Your task to perform on an android device: check the backup settings in the google photos Image 0: 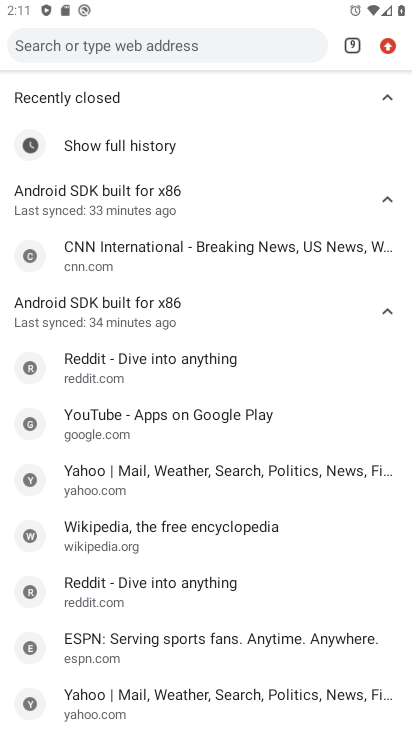
Step 0: press home button
Your task to perform on an android device: check the backup settings in the google photos Image 1: 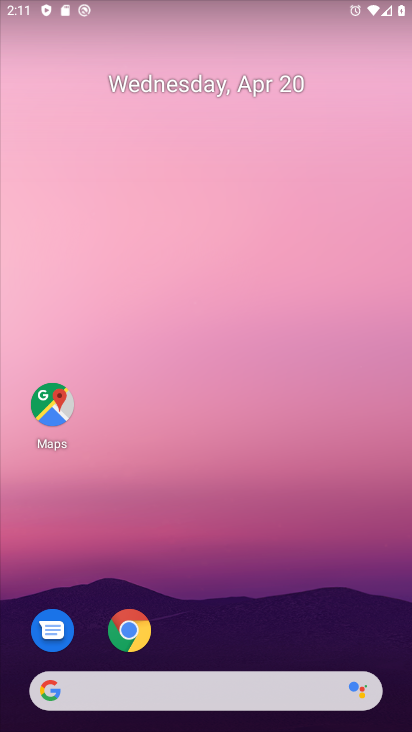
Step 1: drag from (273, 630) to (223, 98)
Your task to perform on an android device: check the backup settings in the google photos Image 2: 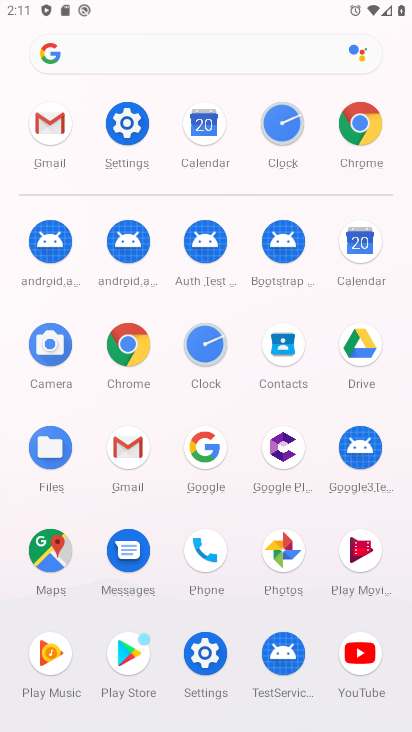
Step 2: click (282, 550)
Your task to perform on an android device: check the backup settings in the google photos Image 3: 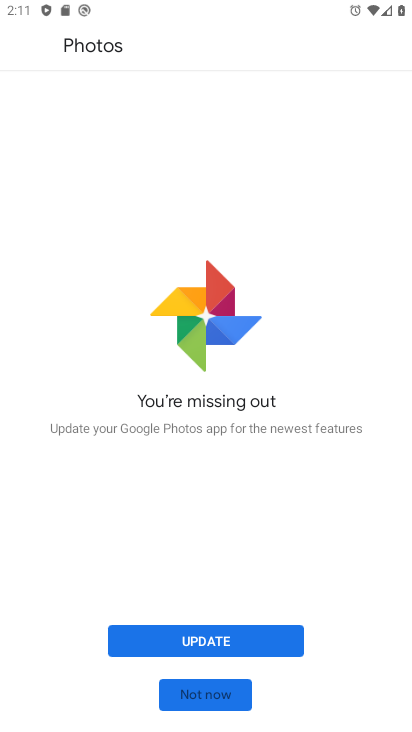
Step 3: click (215, 705)
Your task to perform on an android device: check the backup settings in the google photos Image 4: 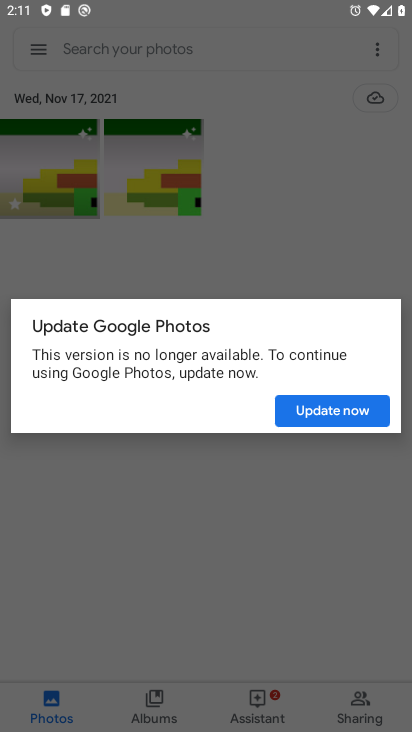
Step 4: click (318, 410)
Your task to perform on an android device: check the backup settings in the google photos Image 5: 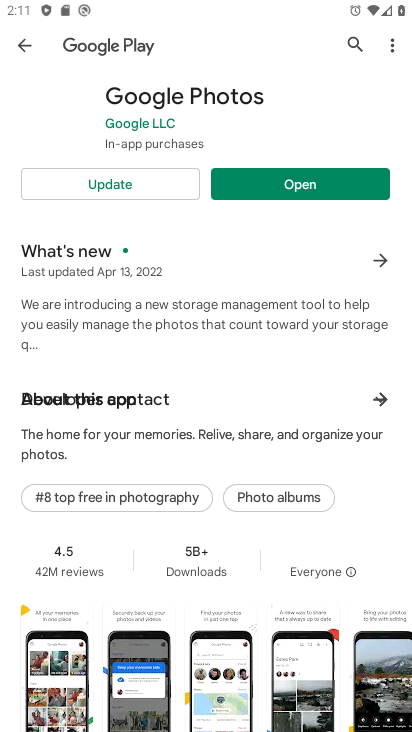
Step 5: press back button
Your task to perform on an android device: check the backup settings in the google photos Image 6: 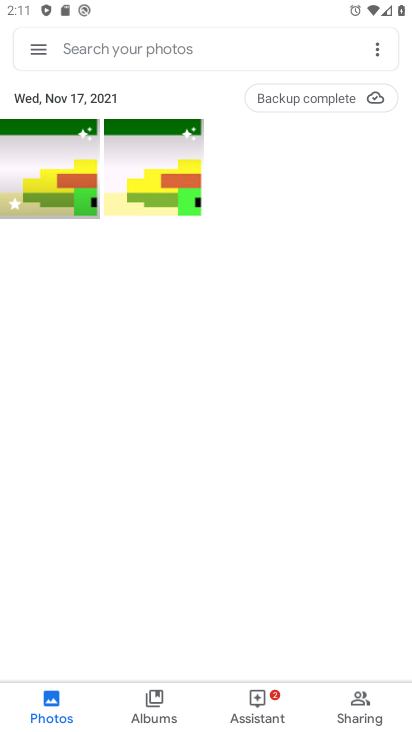
Step 6: click (38, 51)
Your task to perform on an android device: check the backup settings in the google photos Image 7: 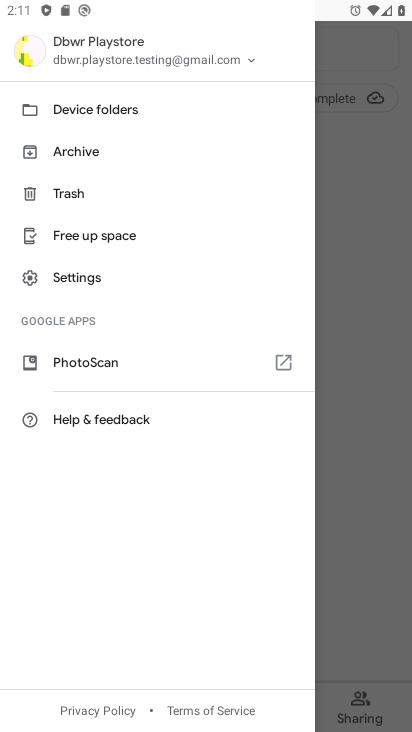
Step 7: click (75, 281)
Your task to perform on an android device: check the backup settings in the google photos Image 8: 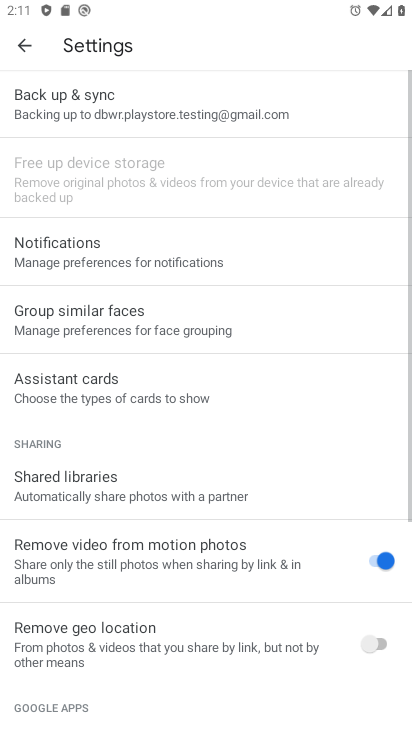
Step 8: click (174, 104)
Your task to perform on an android device: check the backup settings in the google photos Image 9: 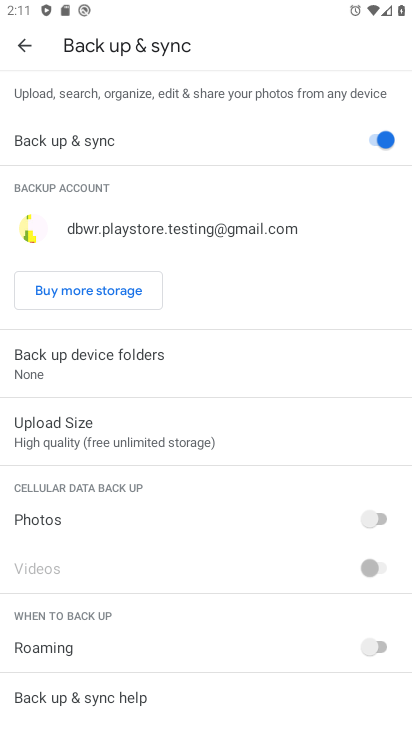
Step 9: task complete